Your task to perform on an android device: Play the last video I watched on Youtube Image 0: 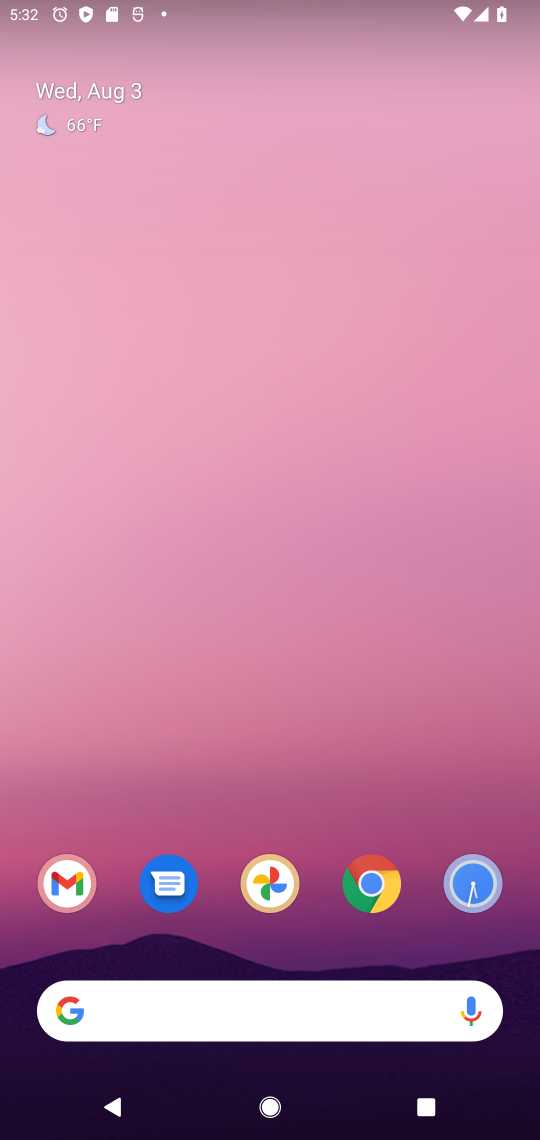
Step 0: drag from (285, 946) to (289, 324)
Your task to perform on an android device: Play the last video I watched on Youtube Image 1: 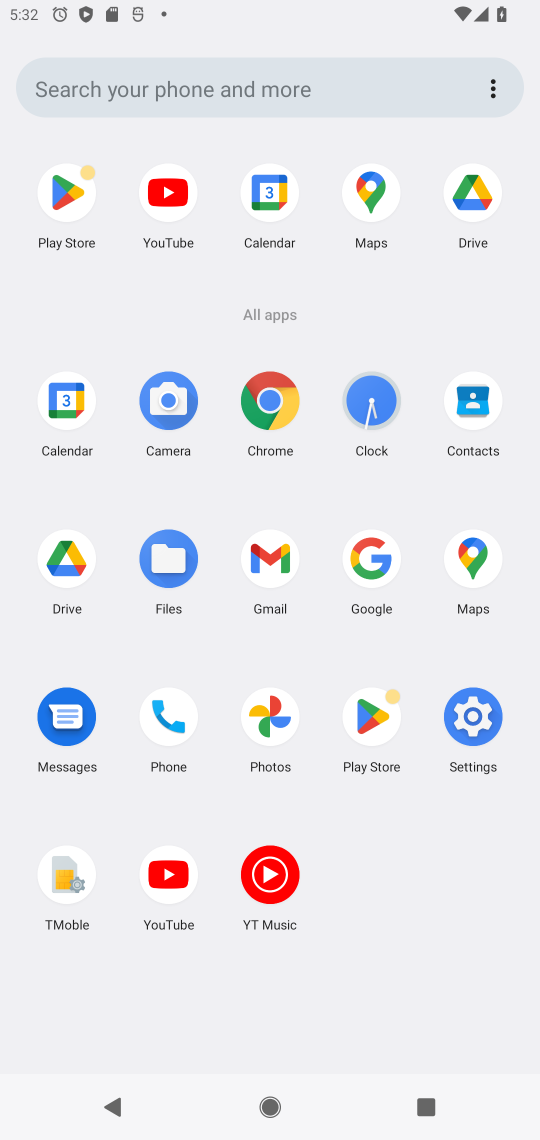
Step 1: click (156, 881)
Your task to perform on an android device: Play the last video I watched on Youtube Image 2: 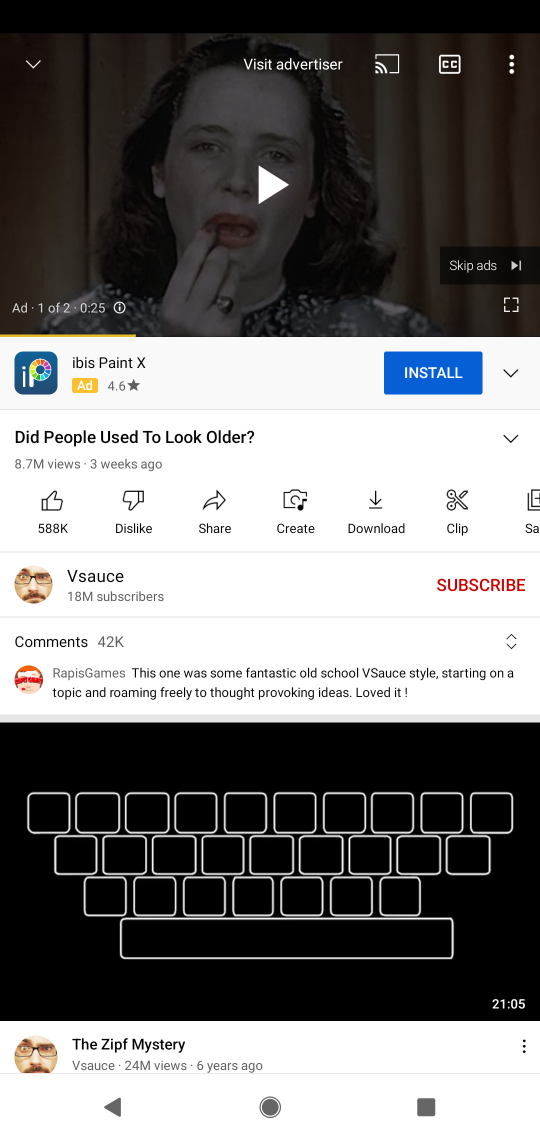
Step 2: press back button
Your task to perform on an android device: Play the last video I watched on Youtube Image 3: 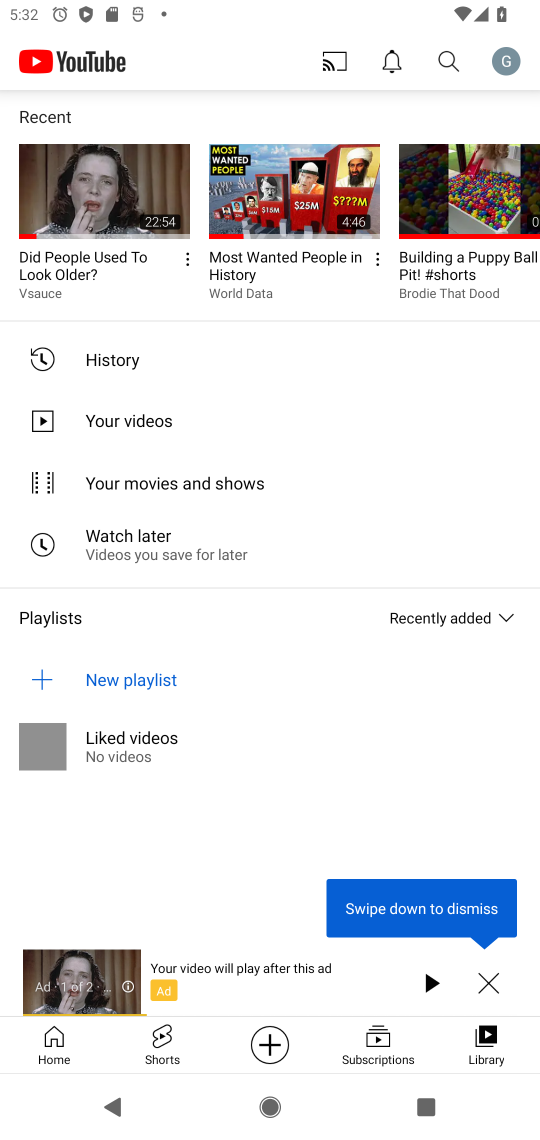
Step 3: click (486, 973)
Your task to perform on an android device: Play the last video I watched on Youtube Image 4: 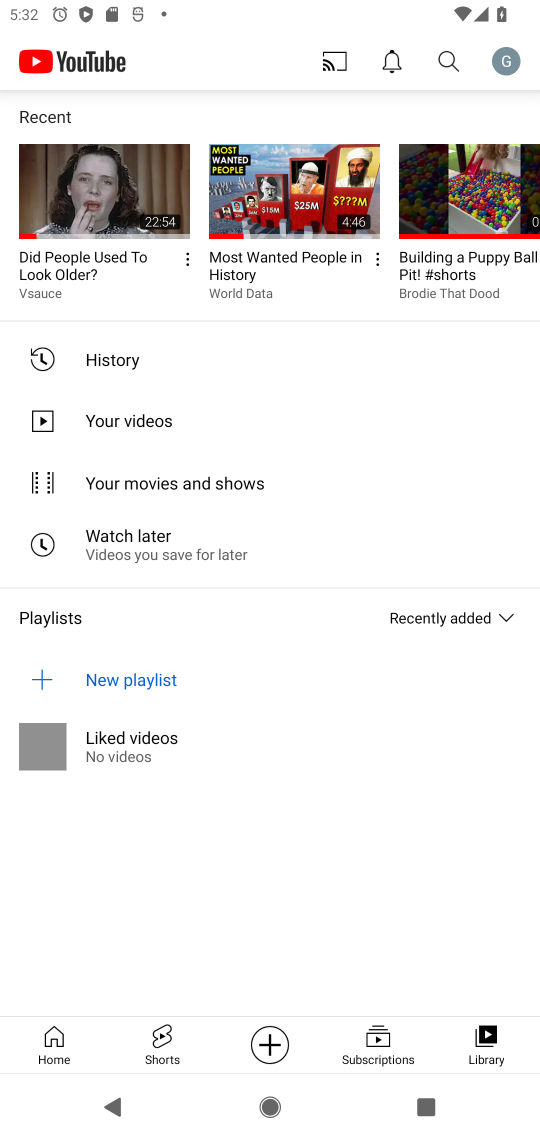
Step 4: click (76, 339)
Your task to perform on an android device: Play the last video I watched on Youtube Image 5: 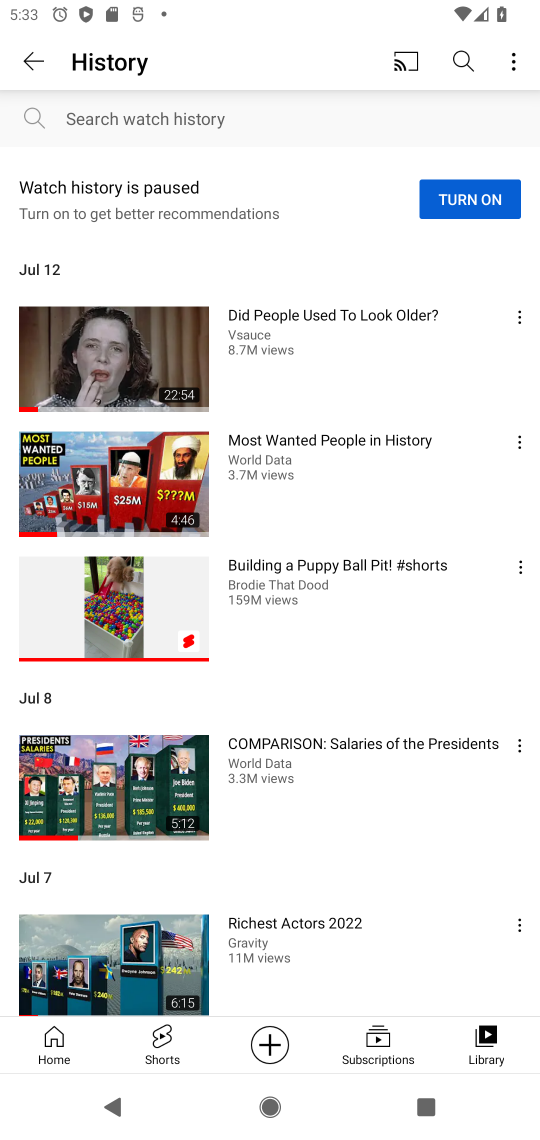
Step 5: click (325, 336)
Your task to perform on an android device: Play the last video I watched on Youtube Image 6: 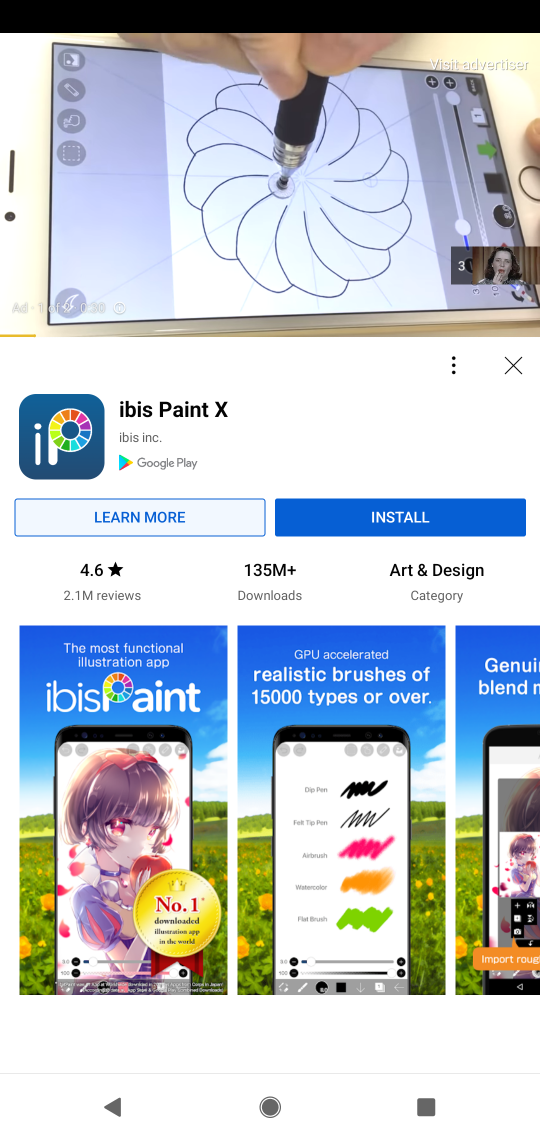
Step 6: task complete